Your task to perform on an android device: Open internet settings Image 0: 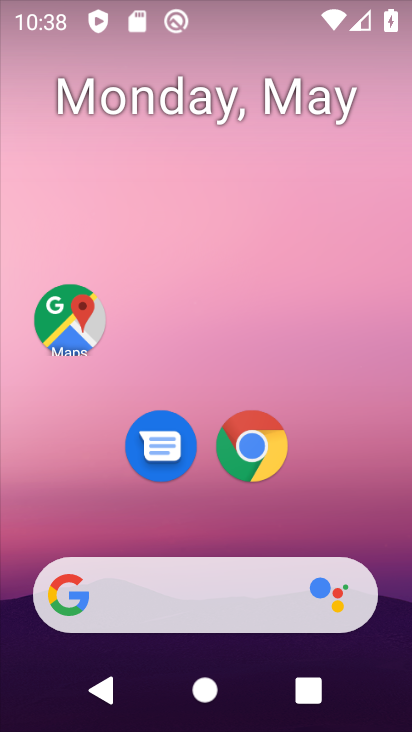
Step 0: drag from (160, 578) to (25, 121)
Your task to perform on an android device: Open internet settings Image 1: 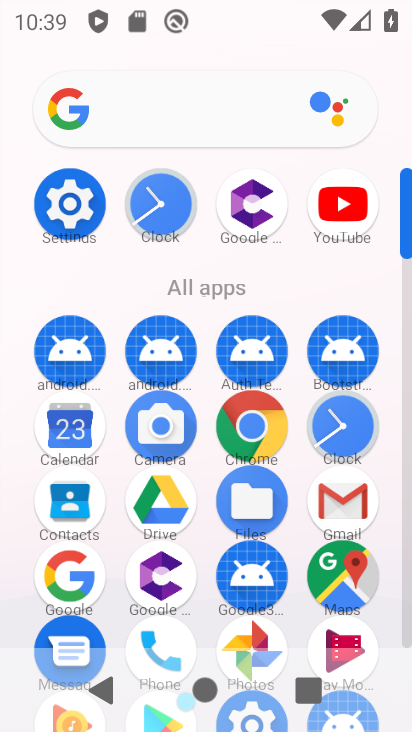
Step 1: click (57, 215)
Your task to perform on an android device: Open internet settings Image 2: 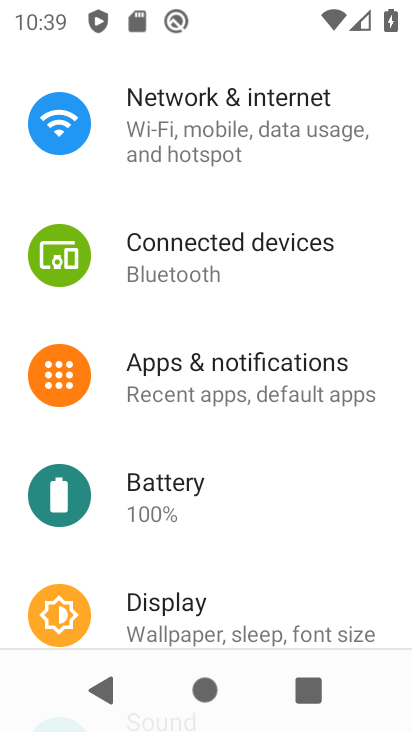
Step 2: click (185, 159)
Your task to perform on an android device: Open internet settings Image 3: 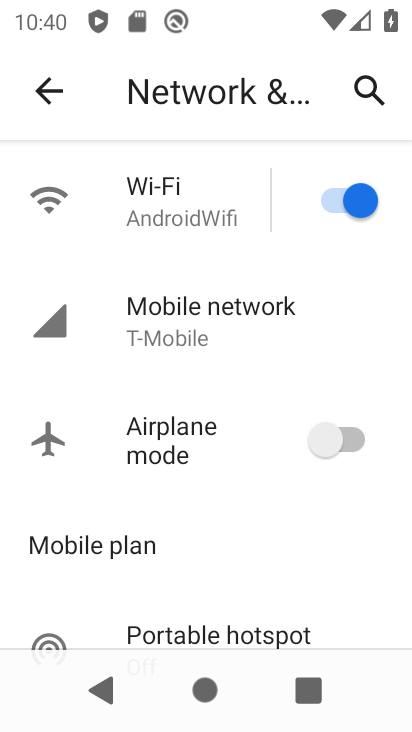
Step 3: task complete